Your task to perform on an android device: add a contact in the contacts app Image 0: 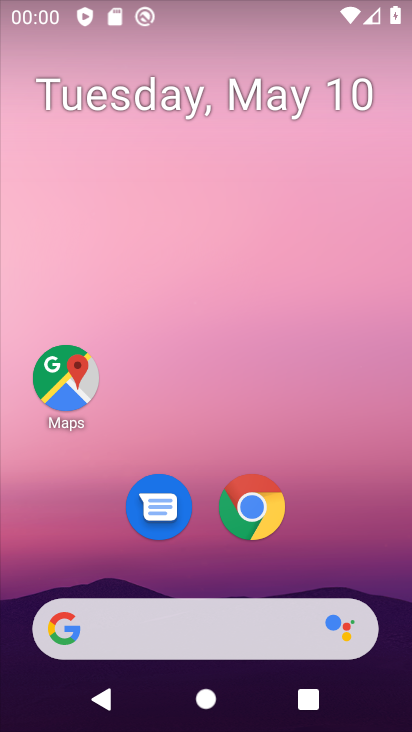
Step 0: drag from (317, 542) to (326, 12)
Your task to perform on an android device: add a contact in the contacts app Image 1: 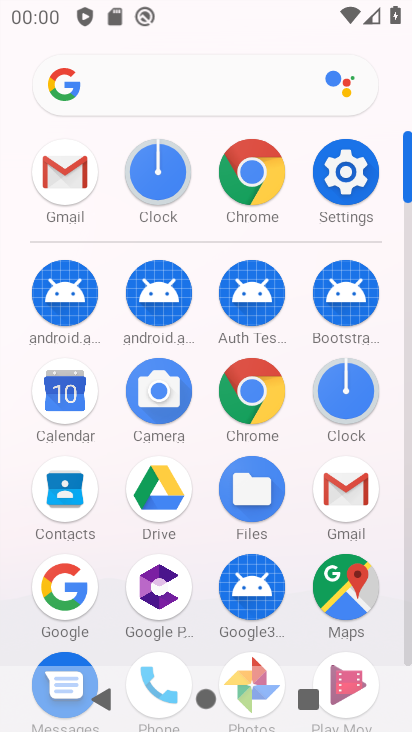
Step 1: click (78, 492)
Your task to perform on an android device: add a contact in the contacts app Image 2: 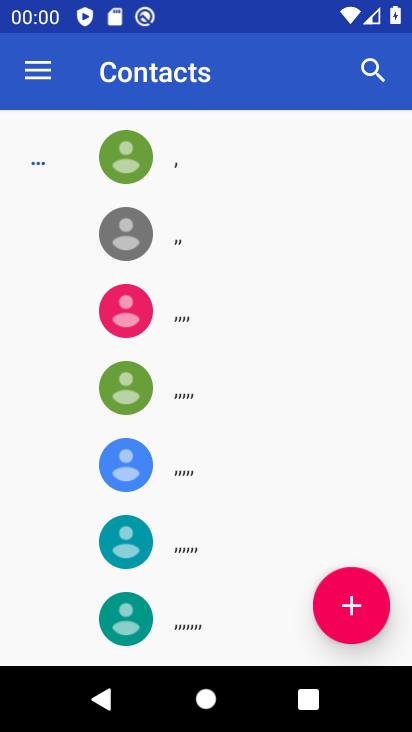
Step 2: click (322, 594)
Your task to perform on an android device: add a contact in the contacts app Image 3: 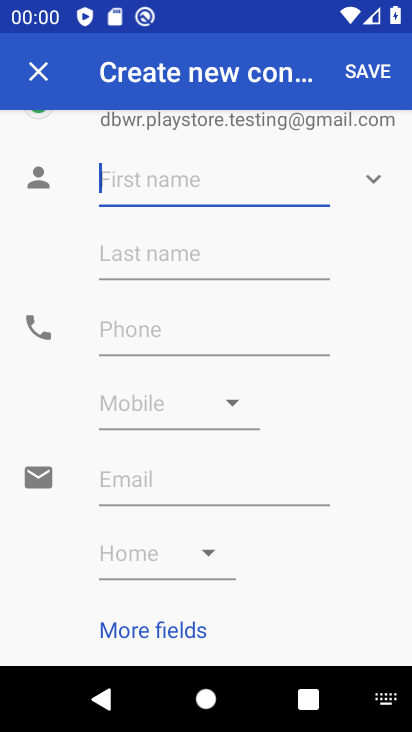
Step 3: type "v vv v "
Your task to perform on an android device: add a contact in the contacts app Image 4: 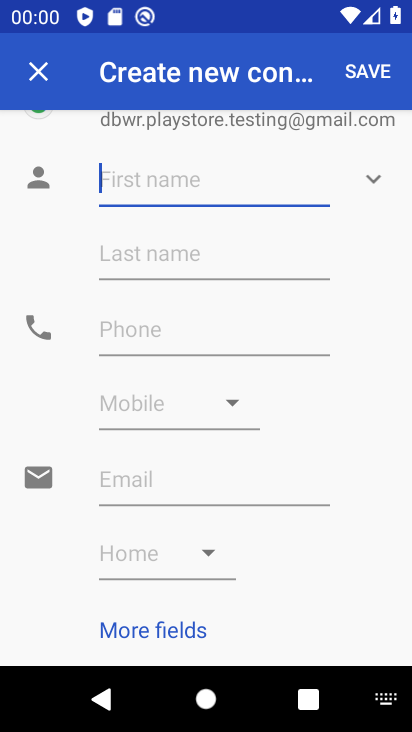
Step 4: click (188, 319)
Your task to perform on an android device: add a contact in the contacts app Image 5: 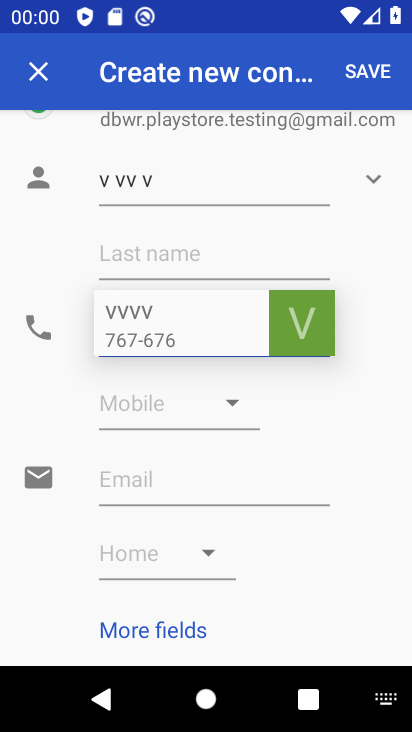
Step 5: click (389, 89)
Your task to perform on an android device: add a contact in the contacts app Image 6: 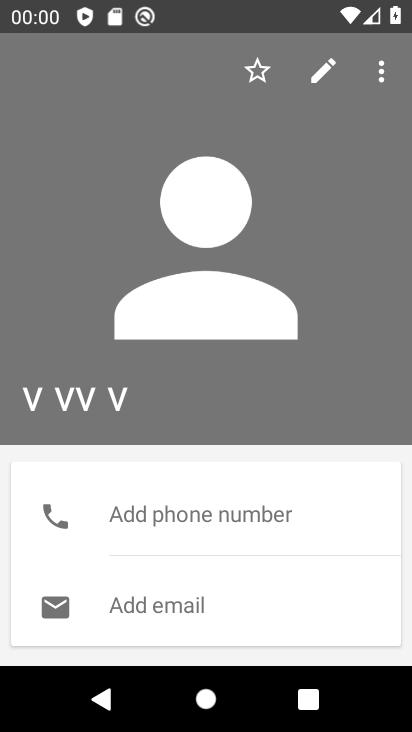
Step 6: task complete